Your task to perform on an android device: Go to Yahoo.com Image 0: 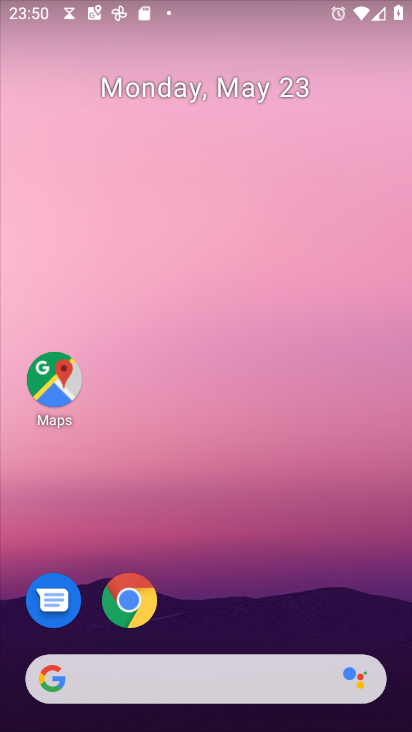
Step 0: click (130, 598)
Your task to perform on an android device: Go to Yahoo.com Image 1: 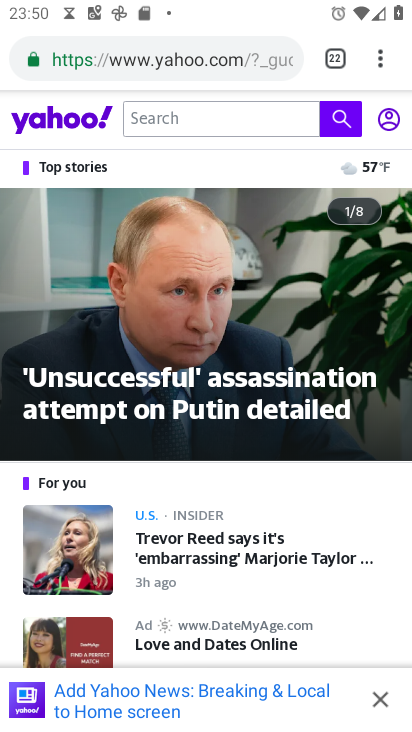
Step 1: task complete